Your task to perform on an android device: star an email in the gmail app Image 0: 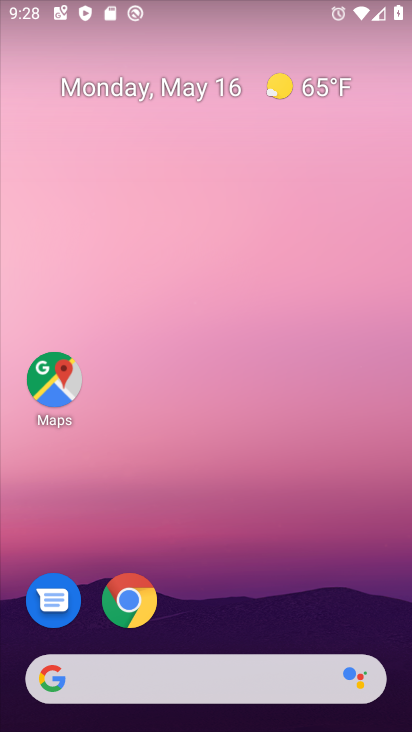
Step 0: drag from (196, 628) to (257, 170)
Your task to perform on an android device: star an email in the gmail app Image 1: 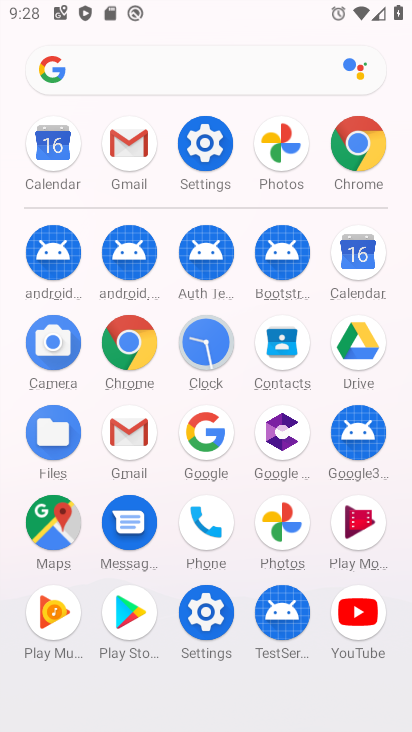
Step 1: click (132, 435)
Your task to perform on an android device: star an email in the gmail app Image 2: 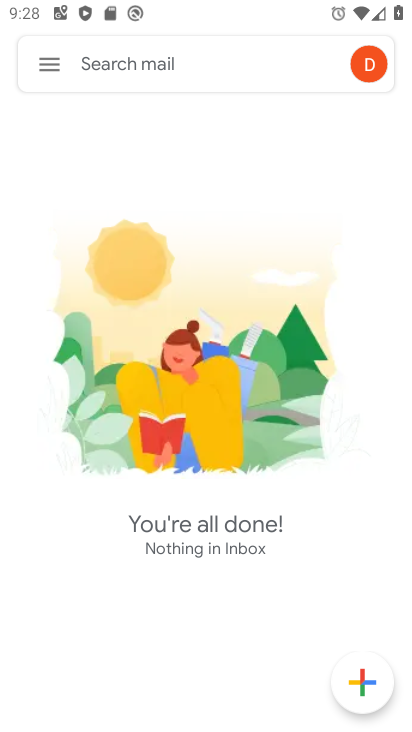
Step 2: drag from (215, 488) to (244, 337)
Your task to perform on an android device: star an email in the gmail app Image 3: 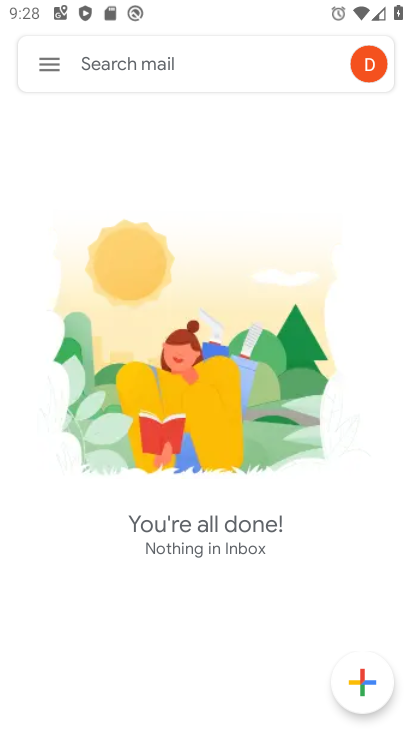
Step 3: click (40, 61)
Your task to perform on an android device: star an email in the gmail app Image 4: 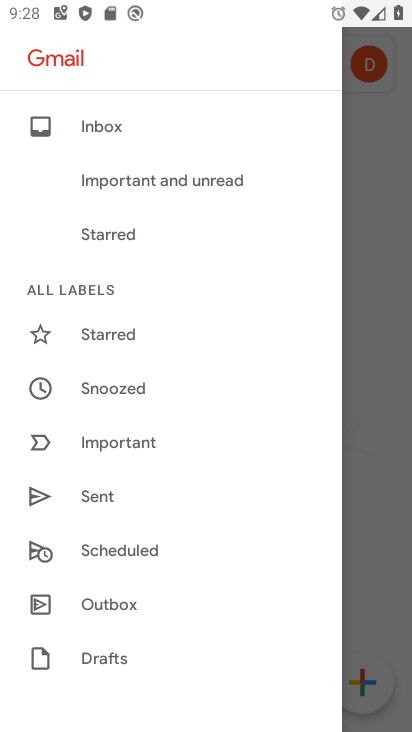
Step 4: click (133, 323)
Your task to perform on an android device: star an email in the gmail app Image 5: 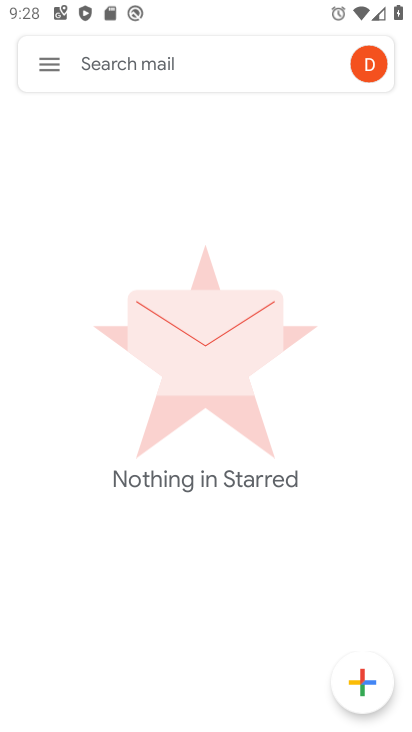
Step 5: drag from (179, 482) to (200, 293)
Your task to perform on an android device: star an email in the gmail app Image 6: 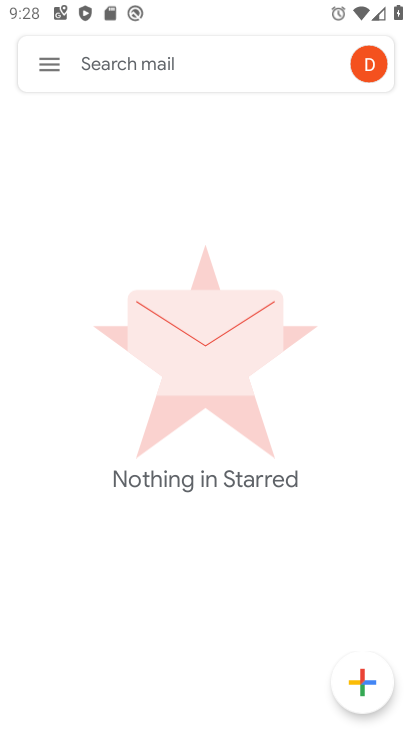
Step 6: click (31, 62)
Your task to perform on an android device: star an email in the gmail app Image 7: 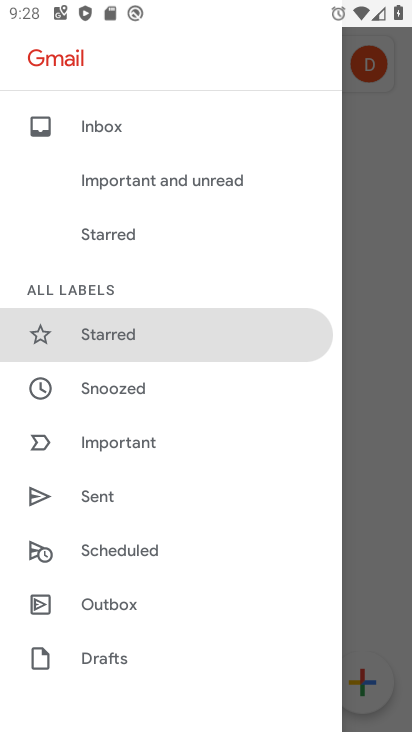
Step 7: click (146, 341)
Your task to perform on an android device: star an email in the gmail app Image 8: 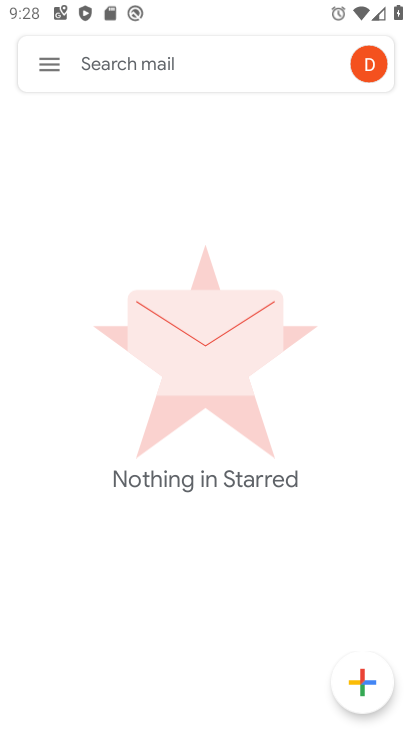
Step 8: click (179, 261)
Your task to perform on an android device: star an email in the gmail app Image 9: 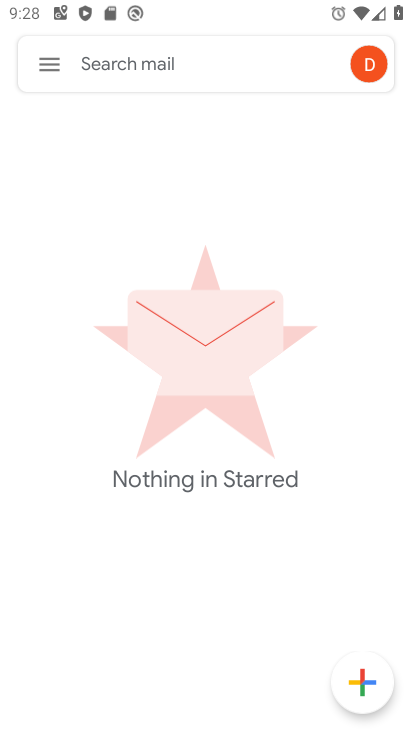
Step 9: click (42, 59)
Your task to perform on an android device: star an email in the gmail app Image 10: 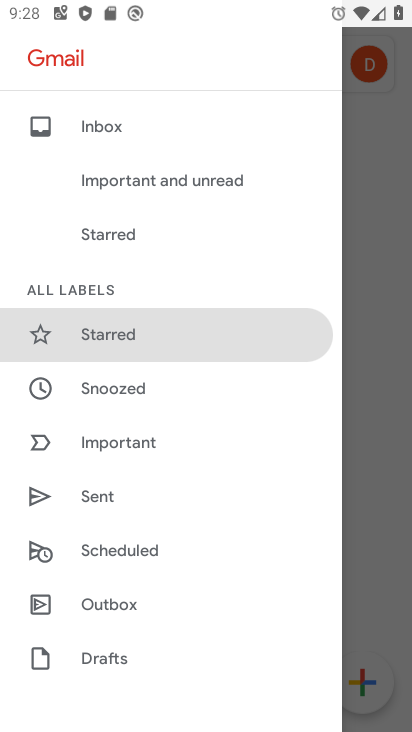
Step 10: click (356, 254)
Your task to perform on an android device: star an email in the gmail app Image 11: 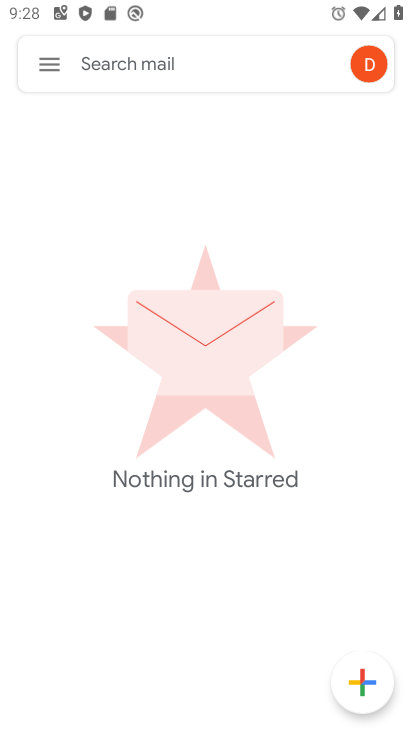
Step 11: task complete